Your task to perform on an android device: Search for vegetarian restaurants on Maps Image 0: 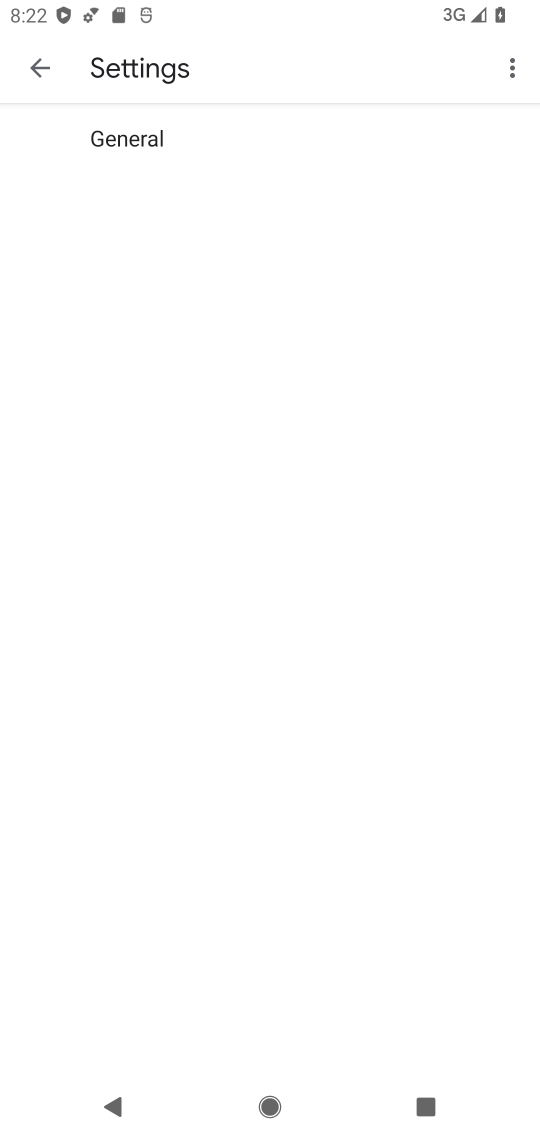
Step 0: press home button
Your task to perform on an android device: Search for vegetarian restaurants on Maps Image 1: 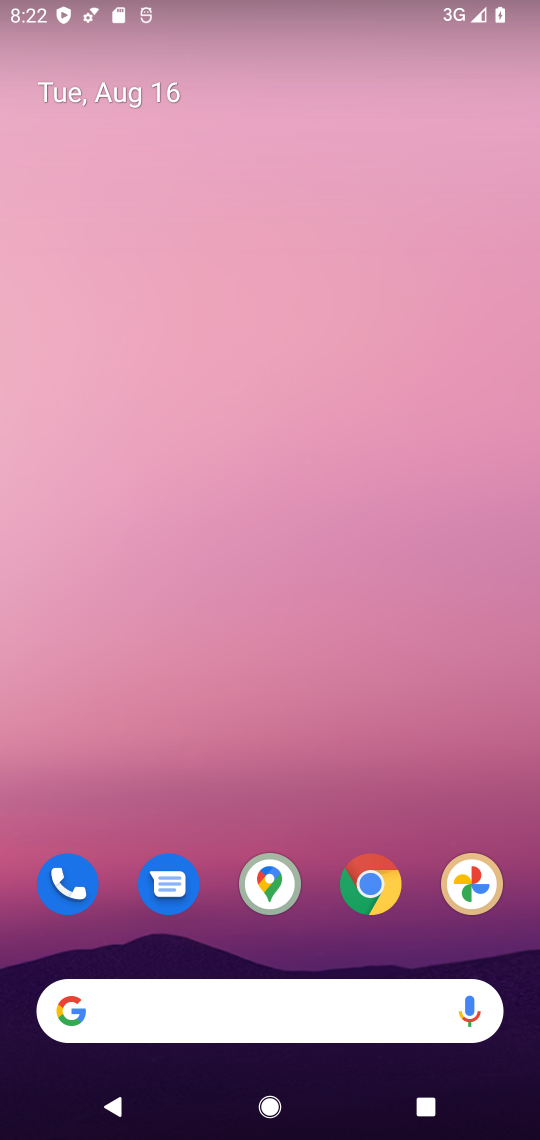
Step 1: click (270, 881)
Your task to perform on an android device: Search for vegetarian restaurants on Maps Image 2: 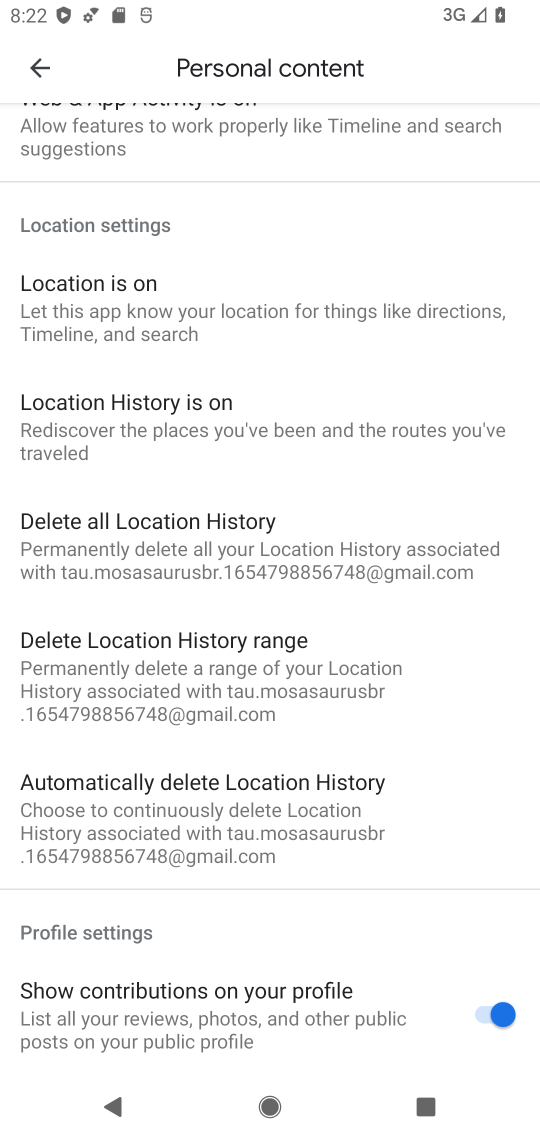
Step 2: press back button
Your task to perform on an android device: Search for vegetarian restaurants on Maps Image 3: 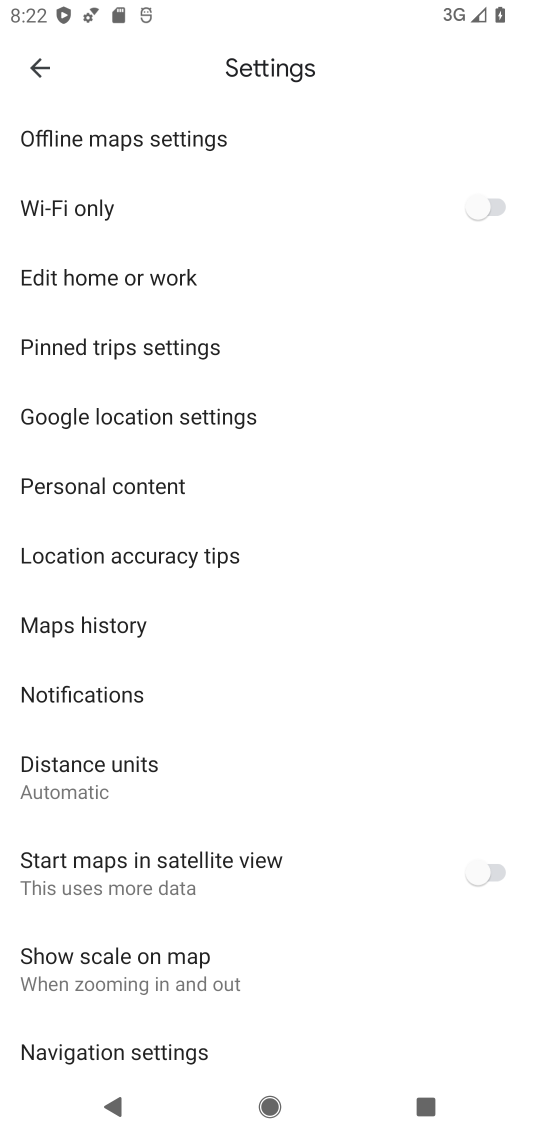
Step 3: press back button
Your task to perform on an android device: Search for vegetarian restaurants on Maps Image 4: 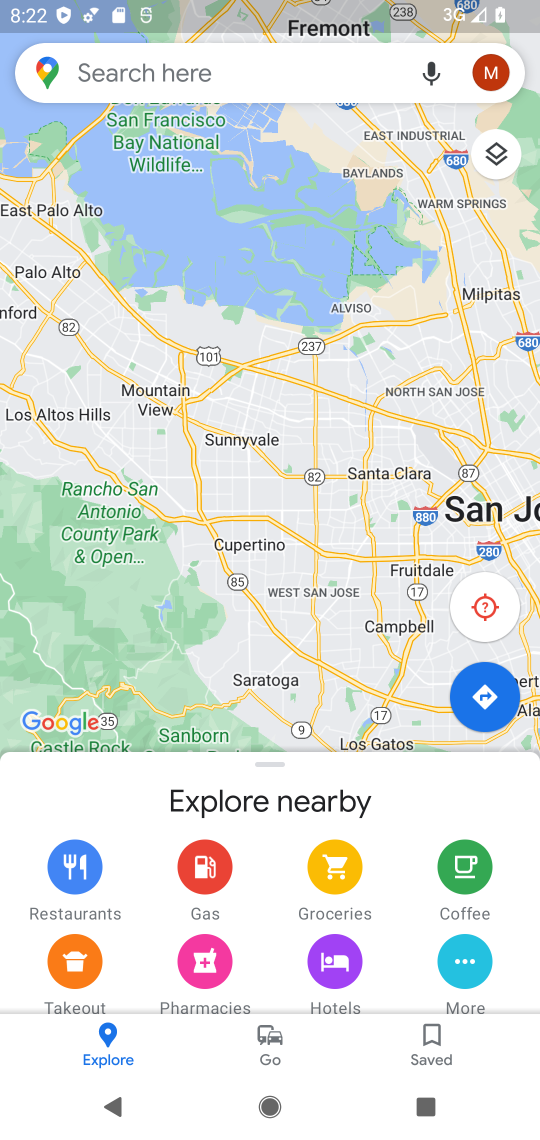
Step 4: click (191, 75)
Your task to perform on an android device: Search for vegetarian restaurants on Maps Image 5: 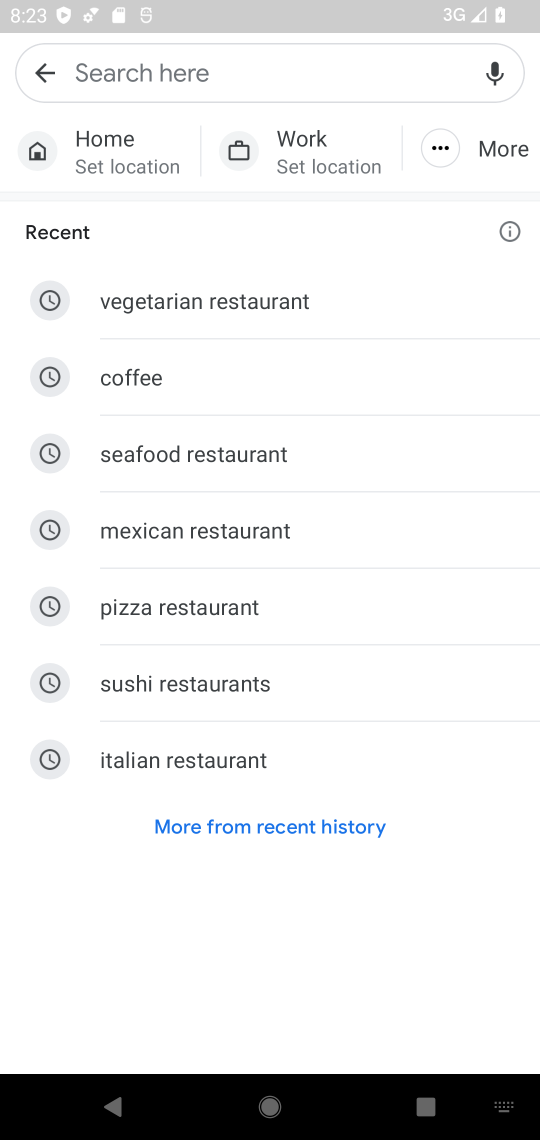
Step 5: type "vegetarian restaurants"
Your task to perform on an android device: Search for vegetarian restaurants on Maps Image 6: 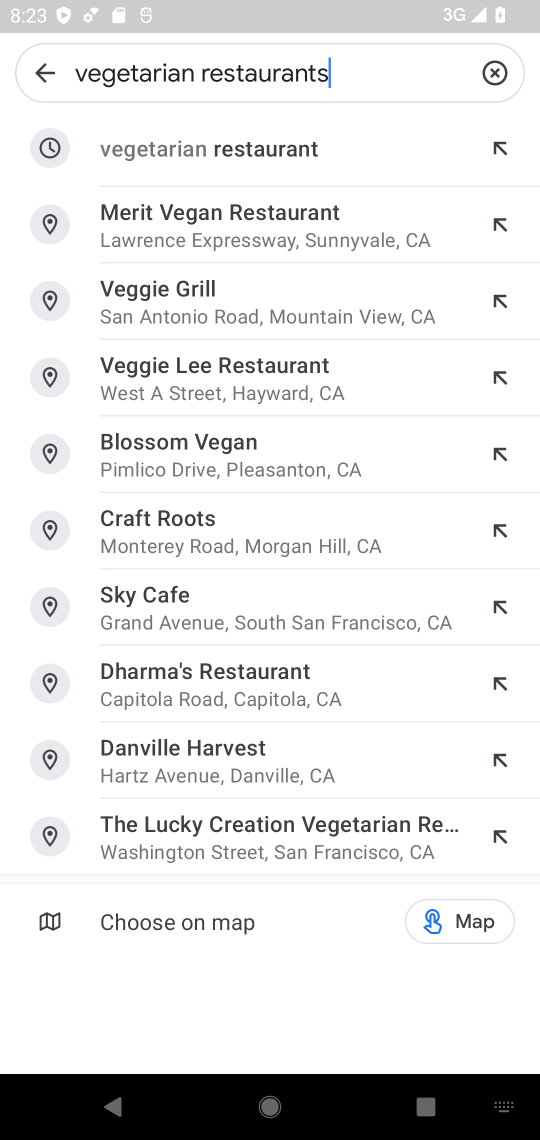
Step 6: click (170, 148)
Your task to perform on an android device: Search for vegetarian restaurants on Maps Image 7: 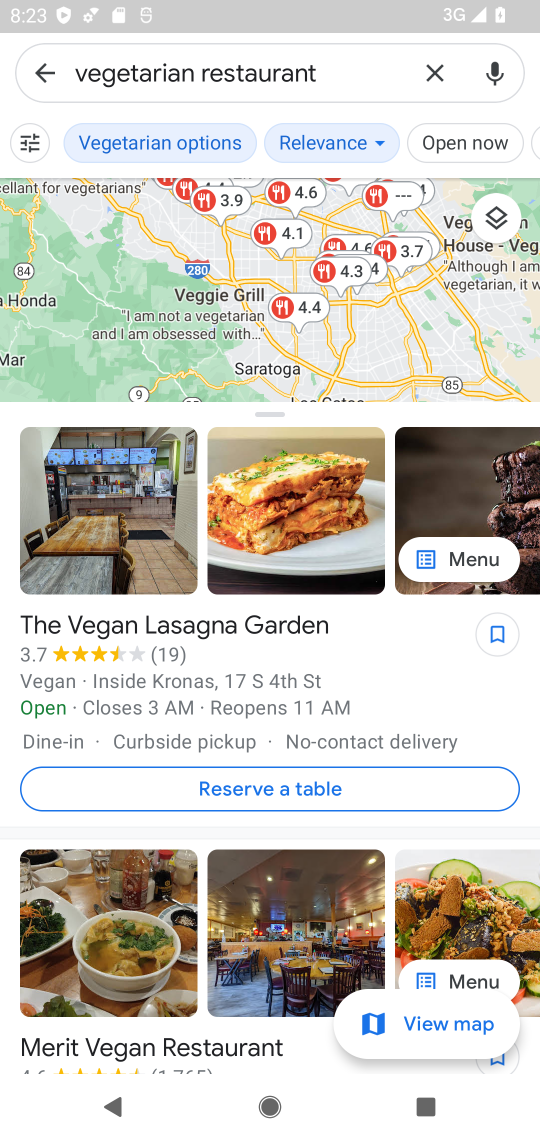
Step 7: task complete